Your task to perform on an android device: Turn on the flashlight Image 0: 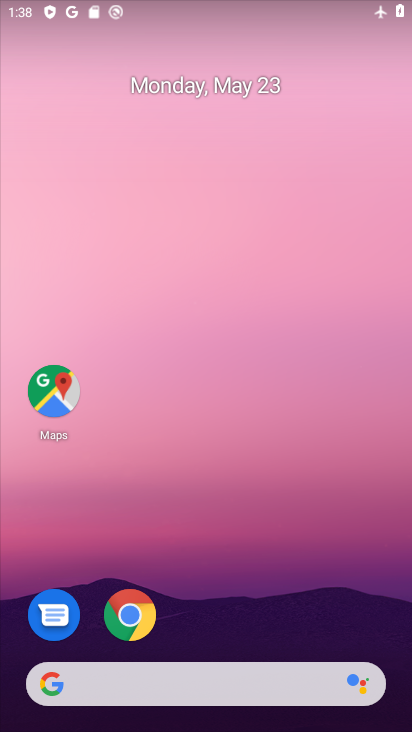
Step 0: drag from (212, 633) to (113, 46)
Your task to perform on an android device: Turn on the flashlight Image 1: 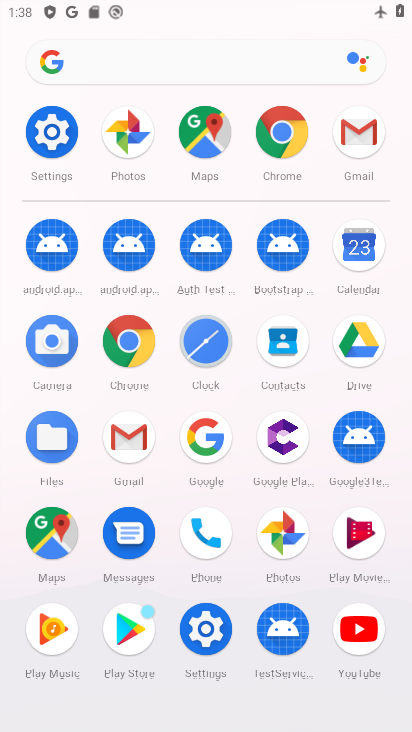
Step 1: click (64, 127)
Your task to perform on an android device: Turn on the flashlight Image 2: 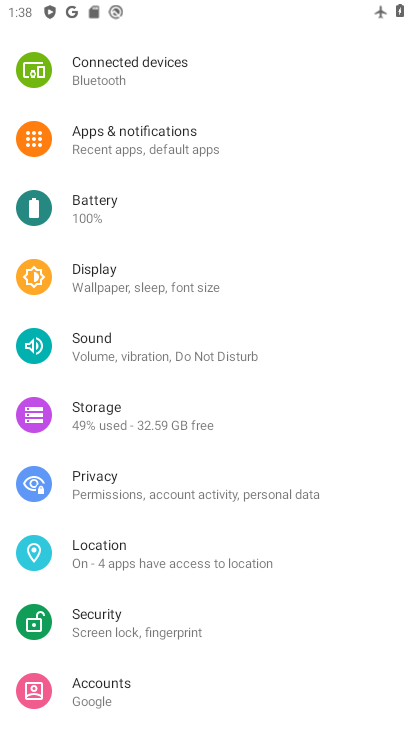
Step 2: task complete